Your task to perform on an android device: clear all cookies in the chrome app Image 0: 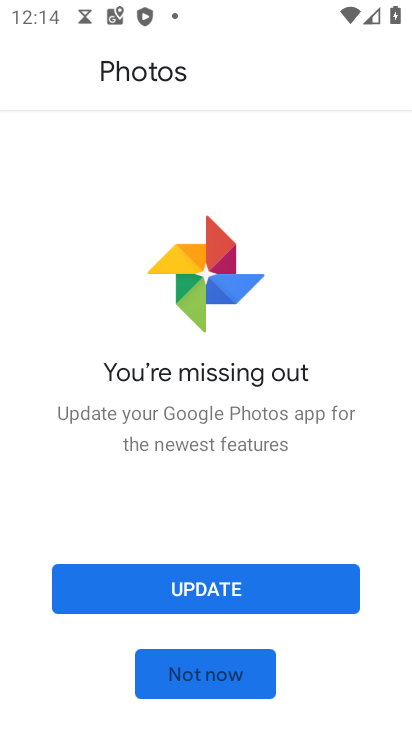
Step 0: press home button
Your task to perform on an android device: clear all cookies in the chrome app Image 1: 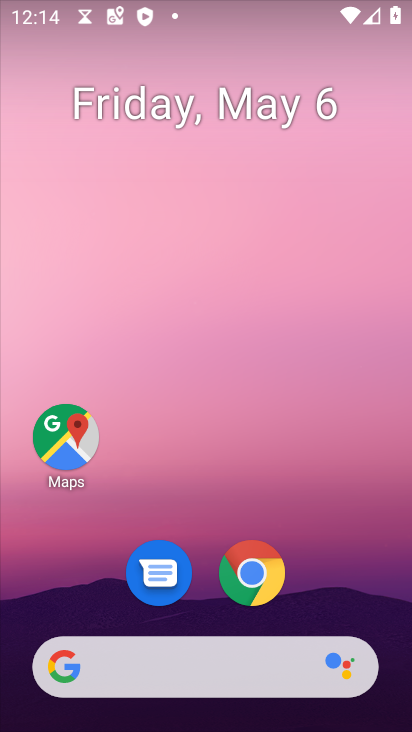
Step 1: drag from (313, 609) to (359, 252)
Your task to perform on an android device: clear all cookies in the chrome app Image 2: 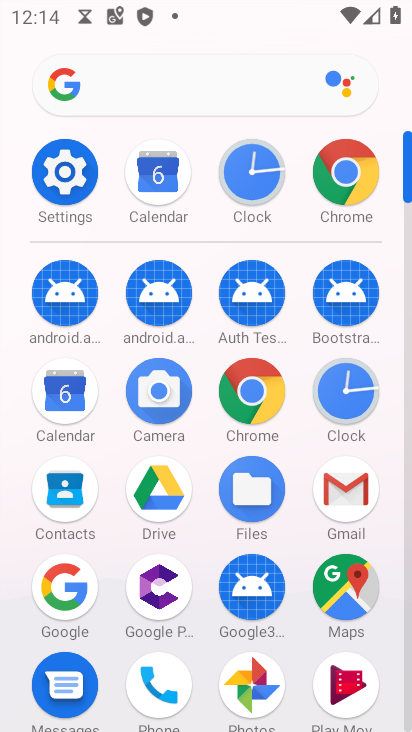
Step 2: click (268, 388)
Your task to perform on an android device: clear all cookies in the chrome app Image 3: 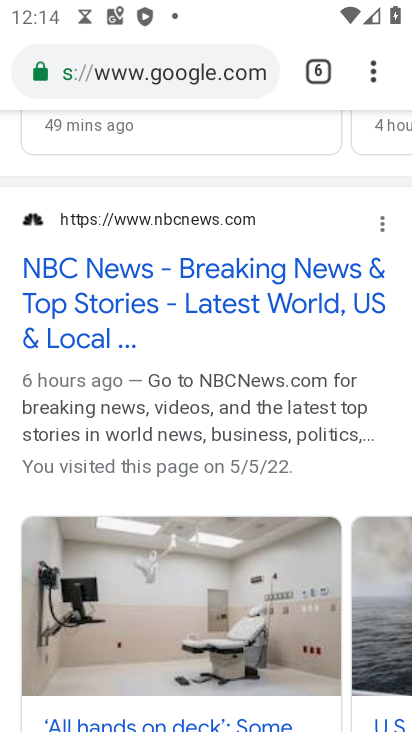
Step 3: click (363, 75)
Your task to perform on an android device: clear all cookies in the chrome app Image 4: 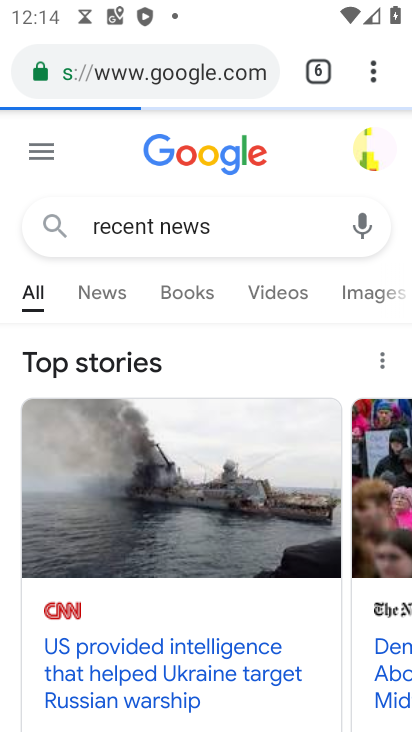
Step 4: click (362, 76)
Your task to perform on an android device: clear all cookies in the chrome app Image 5: 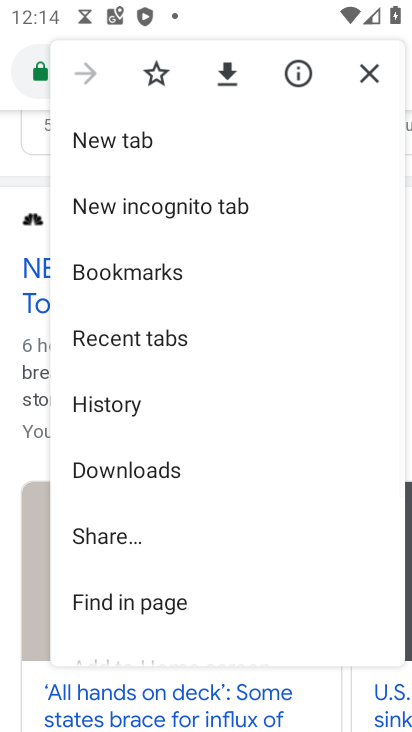
Step 5: drag from (210, 603) to (273, 221)
Your task to perform on an android device: clear all cookies in the chrome app Image 6: 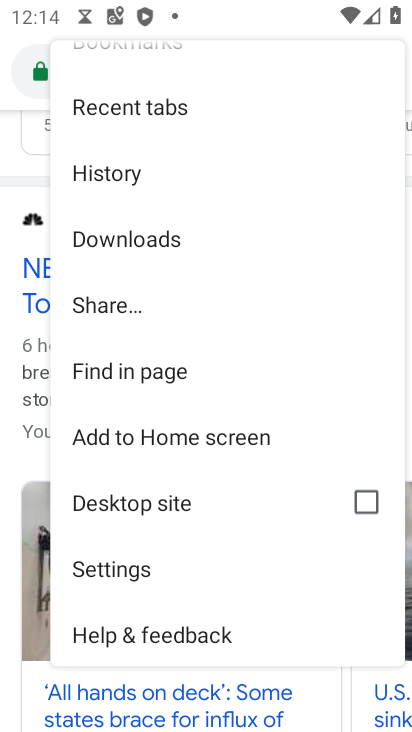
Step 6: click (148, 558)
Your task to perform on an android device: clear all cookies in the chrome app Image 7: 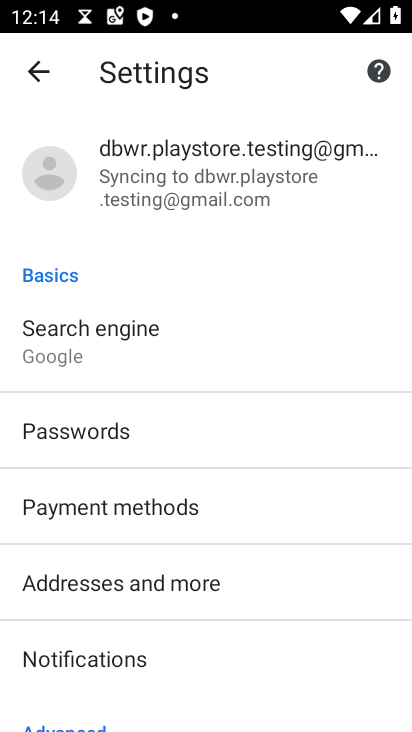
Step 7: drag from (216, 645) to (320, 229)
Your task to perform on an android device: clear all cookies in the chrome app Image 8: 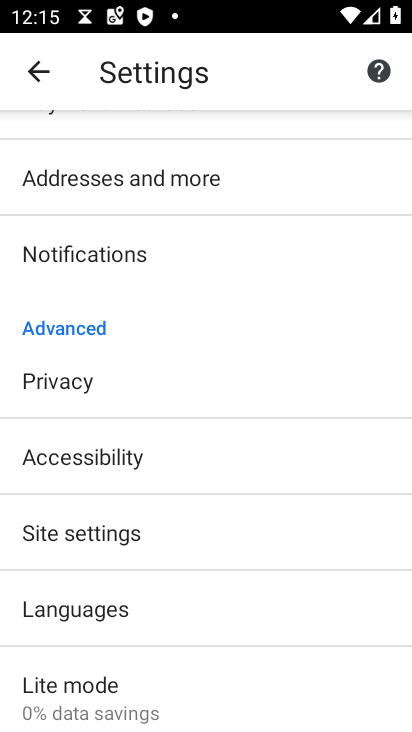
Step 8: drag from (192, 663) to (230, 518)
Your task to perform on an android device: clear all cookies in the chrome app Image 9: 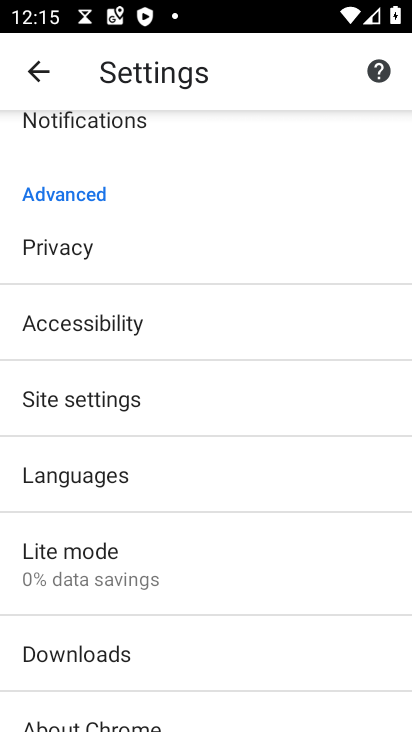
Step 9: click (207, 400)
Your task to perform on an android device: clear all cookies in the chrome app Image 10: 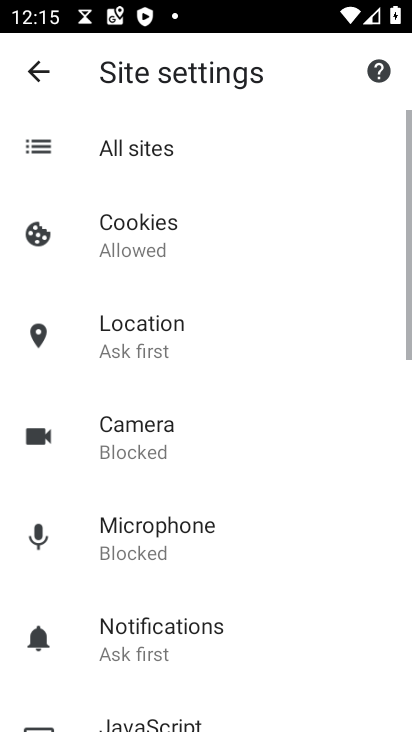
Step 10: click (180, 234)
Your task to perform on an android device: clear all cookies in the chrome app Image 11: 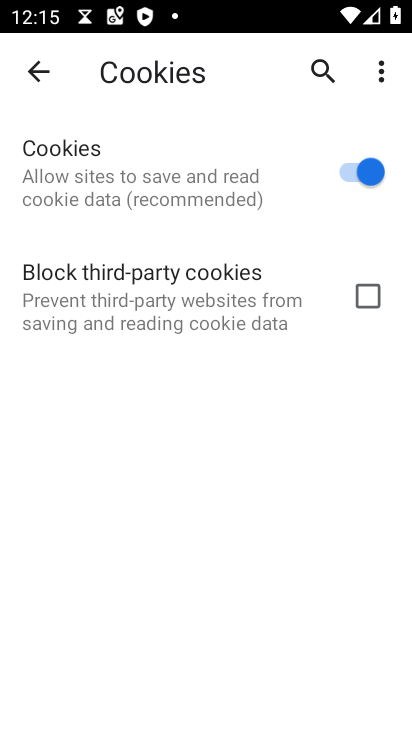
Step 11: click (40, 85)
Your task to perform on an android device: clear all cookies in the chrome app Image 12: 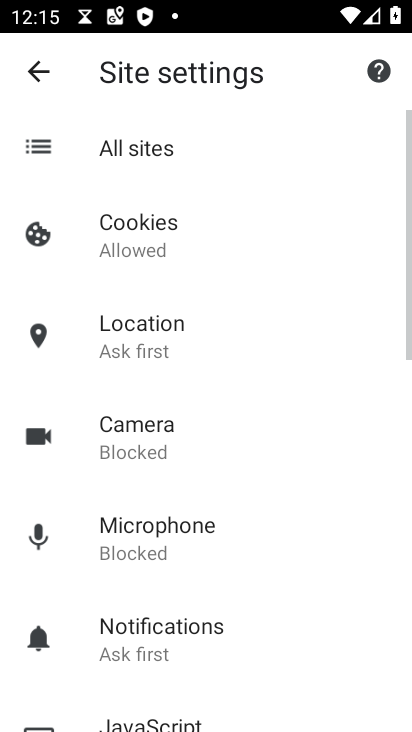
Step 12: click (46, 91)
Your task to perform on an android device: clear all cookies in the chrome app Image 13: 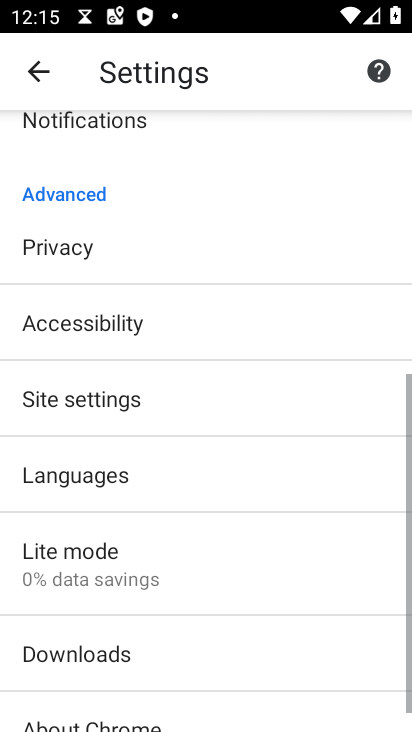
Step 13: click (100, 233)
Your task to perform on an android device: clear all cookies in the chrome app Image 14: 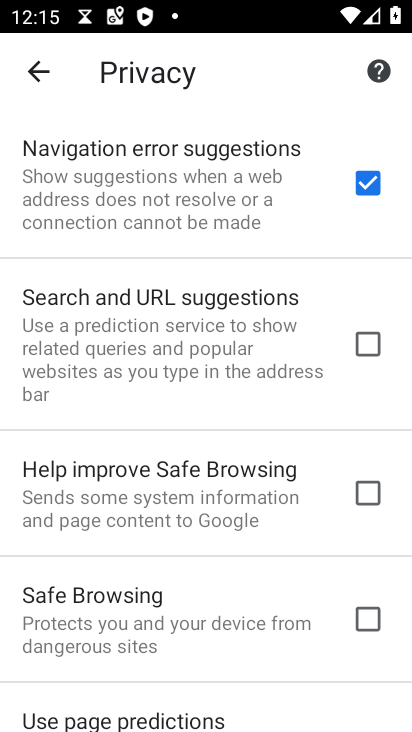
Step 14: drag from (190, 627) to (243, 258)
Your task to perform on an android device: clear all cookies in the chrome app Image 15: 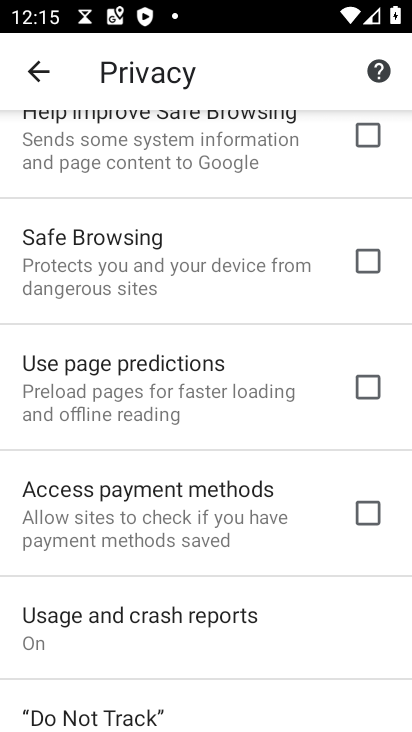
Step 15: drag from (203, 663) to (285, 188)
Your task to perform on an android device: clear all cookies in the chrome app Image 16: 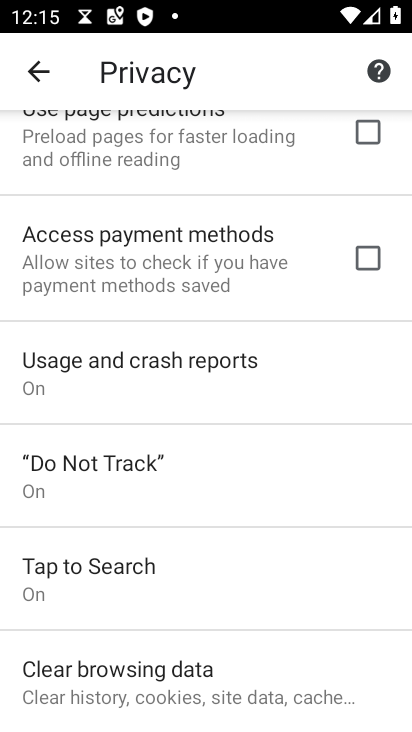
Step 16: click (176, 690)
Your task to perform on an android device: clear all cookies in the chrome app Image 17: 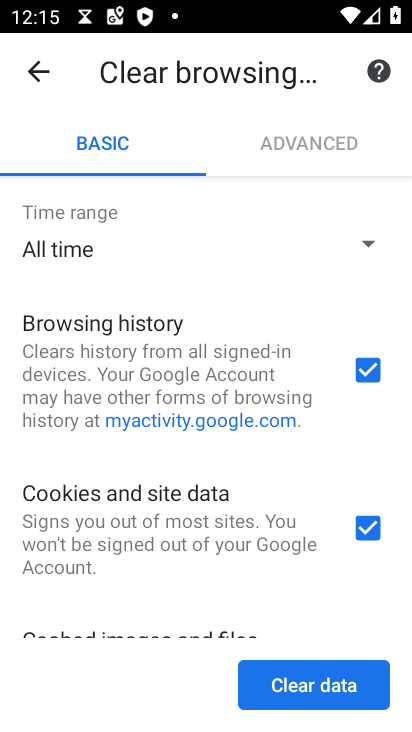
Step 17: click (364, 363)
Your task to perform on an android device: clear all cookies in the chrome app Image 18: 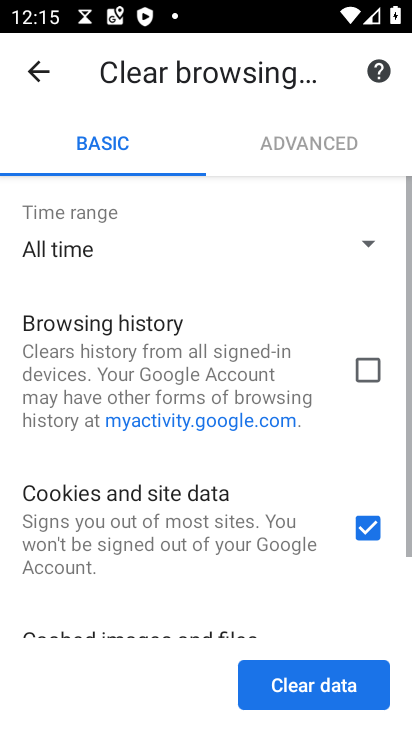
Step 18: click (271, 690)
Your task to perform on an android device: clear all cookies in the chrome app Image 19: 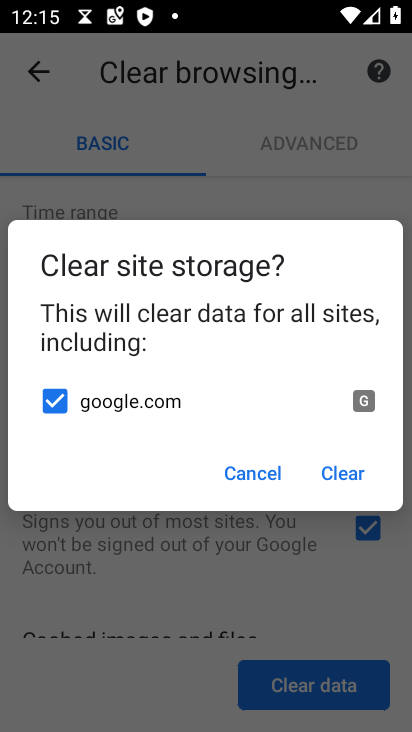
Step 19: click (327, 455)
Your task to perform on an android device: clear all cookies in the chrome app Image 20: 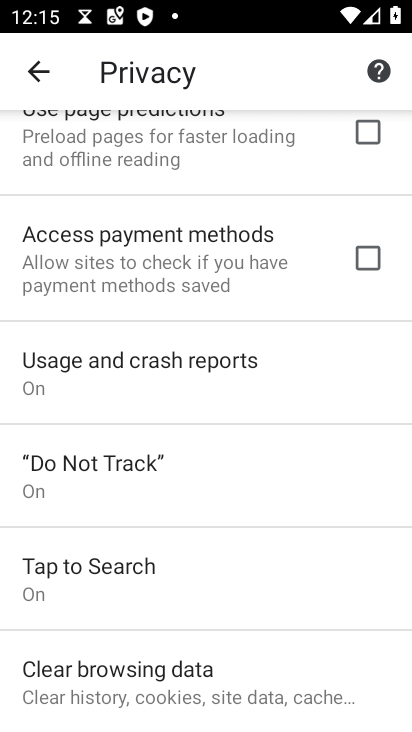
Step 20: task complete